Your task to perform on an android device: Search for Italian restaurants on Maps Image 0: 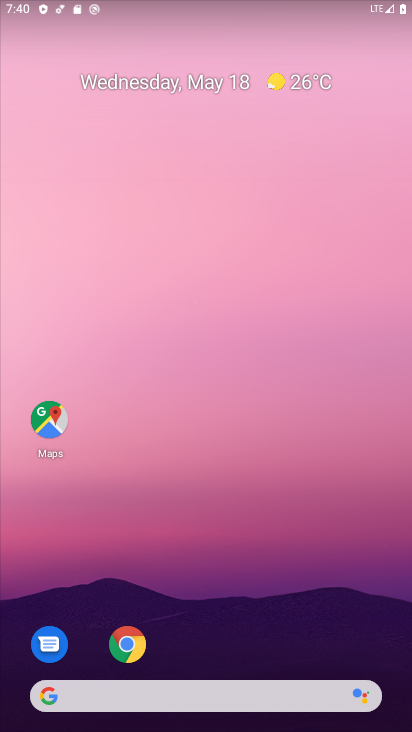
Step 0: click (55, 410)
Your task to perform on an android device: Search for Italian restaurants on Maps Image 1: 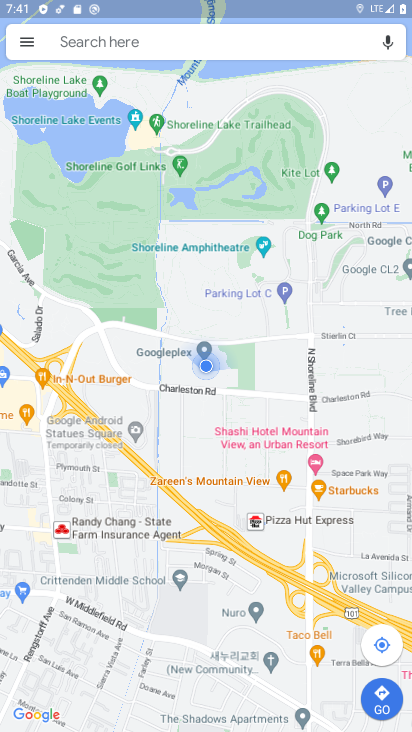
Step 1: click (117, 38)
Your task to perform on an android device: Search for Italian restaurants on Maps Image 2: 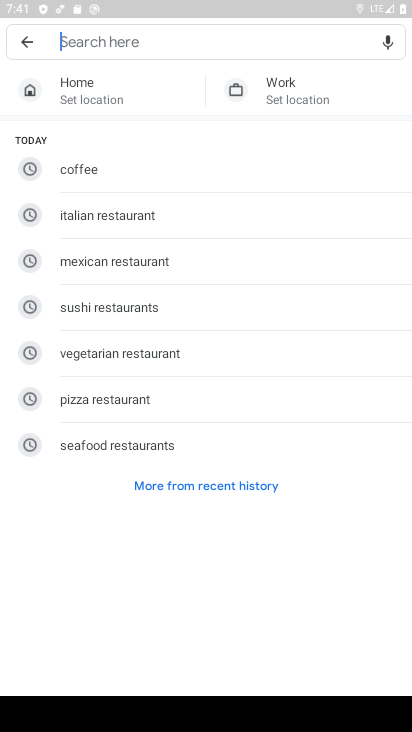
Step 2: type "Italian restaurants"
Your task to perform on an android device: Search for Italian restaurants on Maps Image 3: 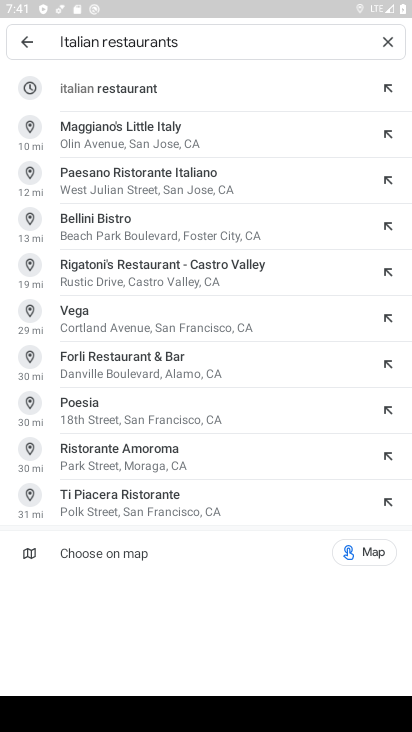
Step 3: click (119, 85)
Your task to perform on an android device: Search for Italian restaurants on Maps Image 4: 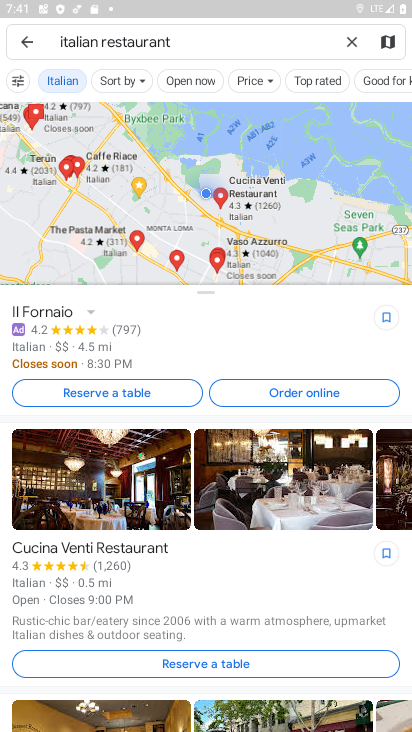
Step 4: task complete